Your task to perform on an android device: Open Chrome and go to settings Image 0: 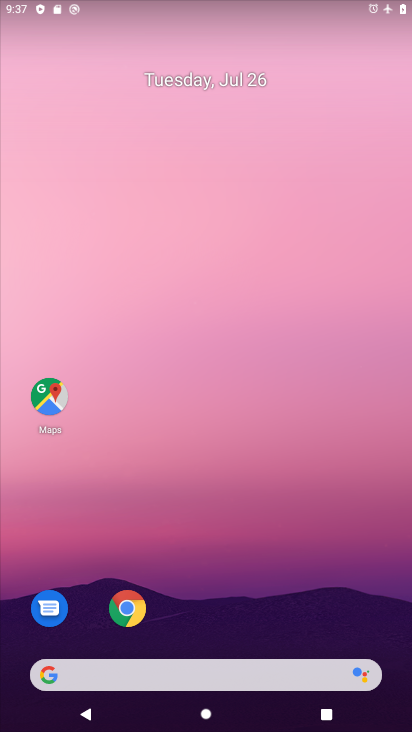
Step 0: click (126, 606)
Your task to perform on an android device: Open Chrome and go to settings Image 1: 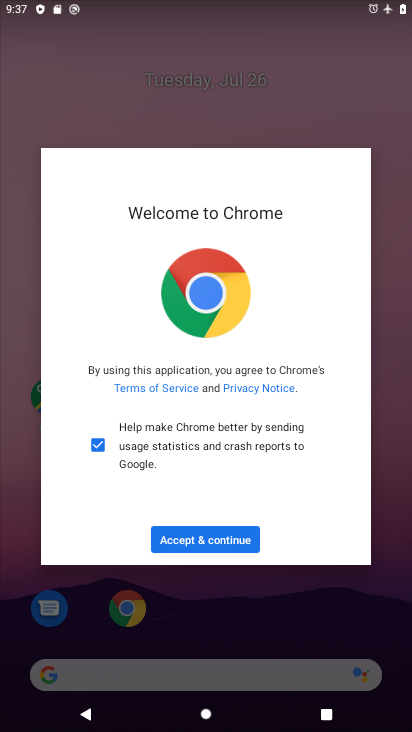
Step 1: click (228, 534)
Your task to perform on an android device: Open Chrome and go to settings Image 2: 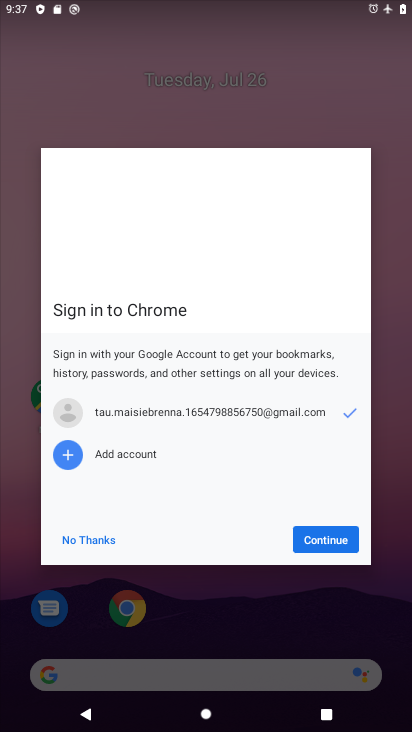
Step 2: click (335, 538)
Your task to perform on an android device: Open Chrome and go to settings Image 3: 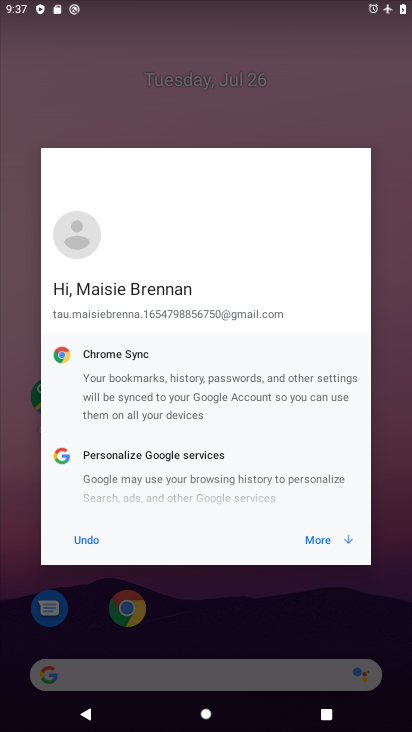
Step 3: click (323, 534)
Your task to perform on an android device: Open Chrome and go to settings Image 4: 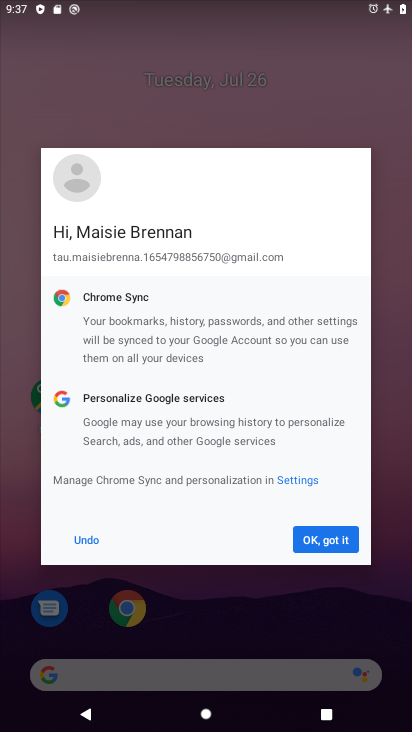
Step 4: click (334, 536)
Your task to perform on an android device: Open Chrome and go to settings Image 5: 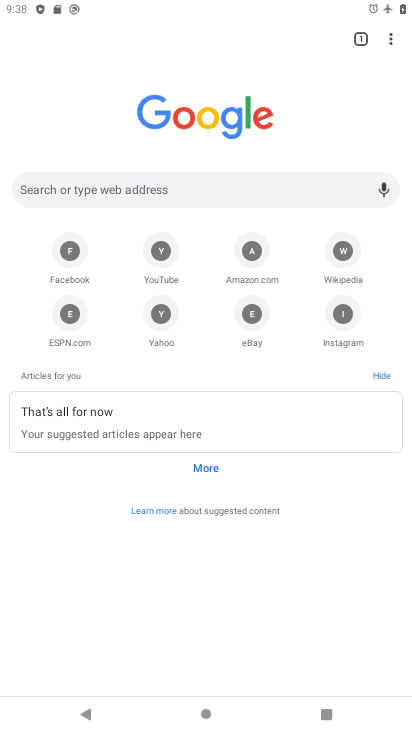
Step 5: click (390, 42)
Your task to perform on an android device: Open Chrome and go to settings Image 6: 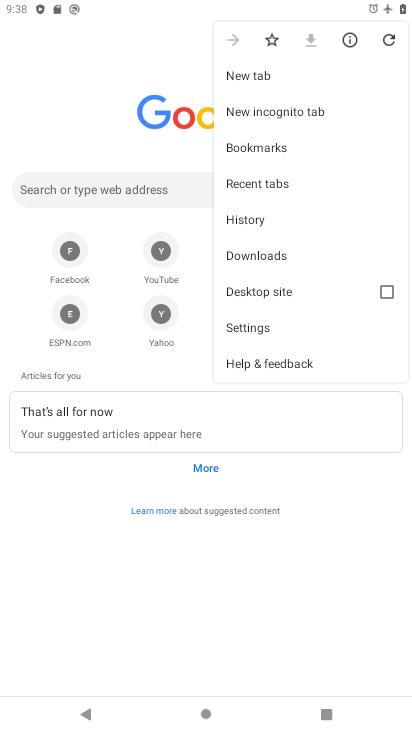
Step 6: click (253, 325)
Your task to perform on an android device: Open Chrome and go to settings Image 7: 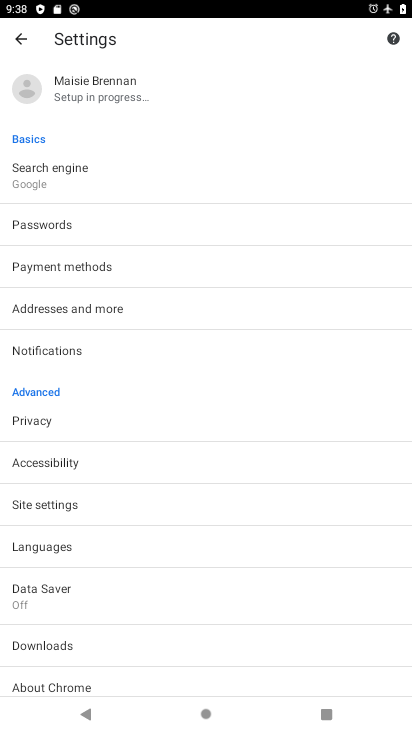
Step 7: task complete